Your task to perform on an android device: turn off notifications settings in the gmail app Image 0: 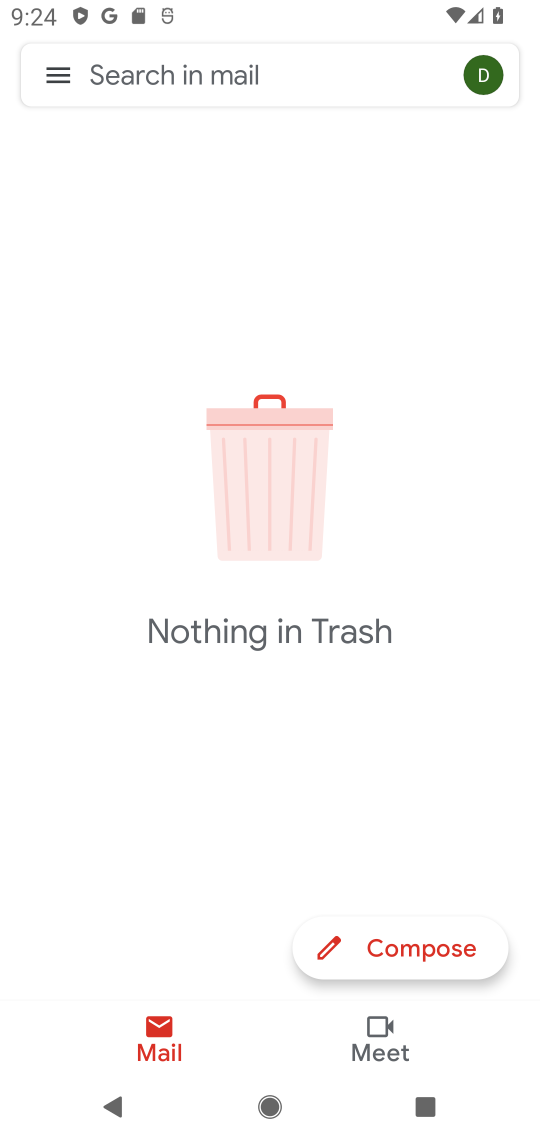
Step 0: press home button
Your task to perform on an android device: turn off notifications settings in the gmail app Image 1: 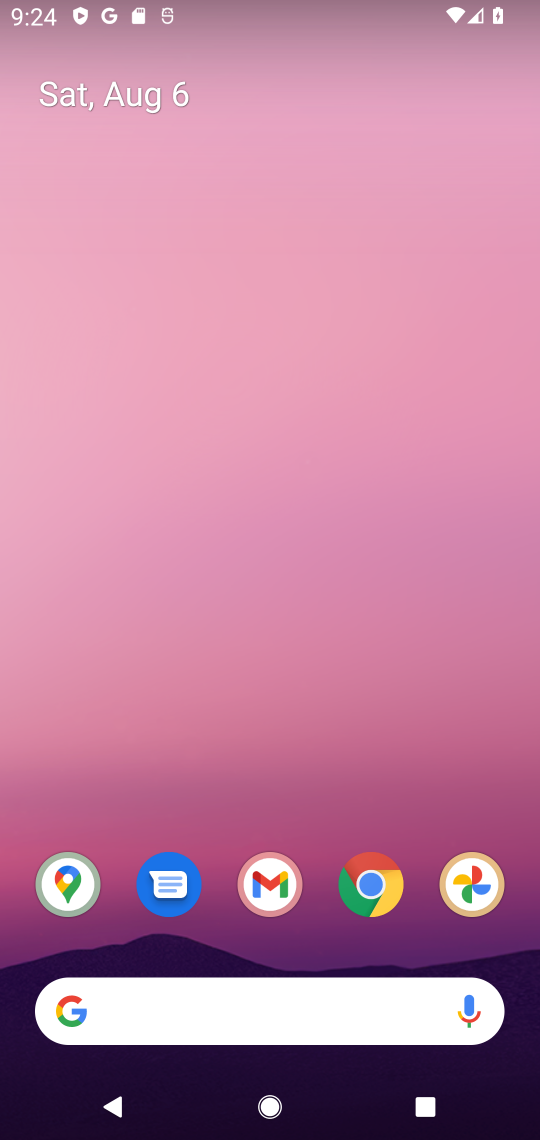
Step 1: click (270, 887)
Your task to perform on an android device: turn off notifications settings in the gmail app Image 2: 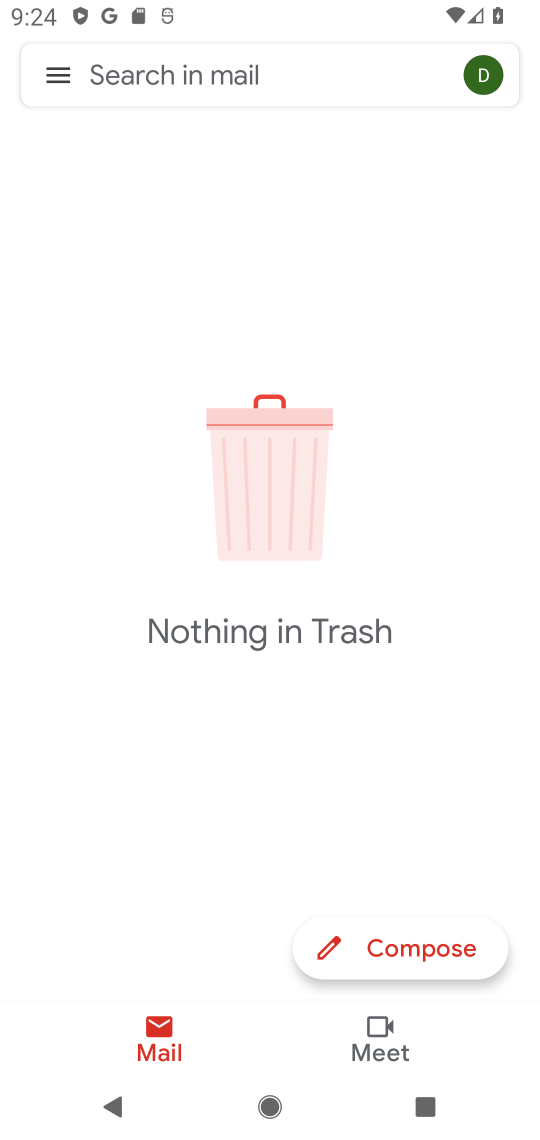
Step 2: click (59, 77)
Your task to perform on an android device: turn off notifications settings in the gmail app Image 3: 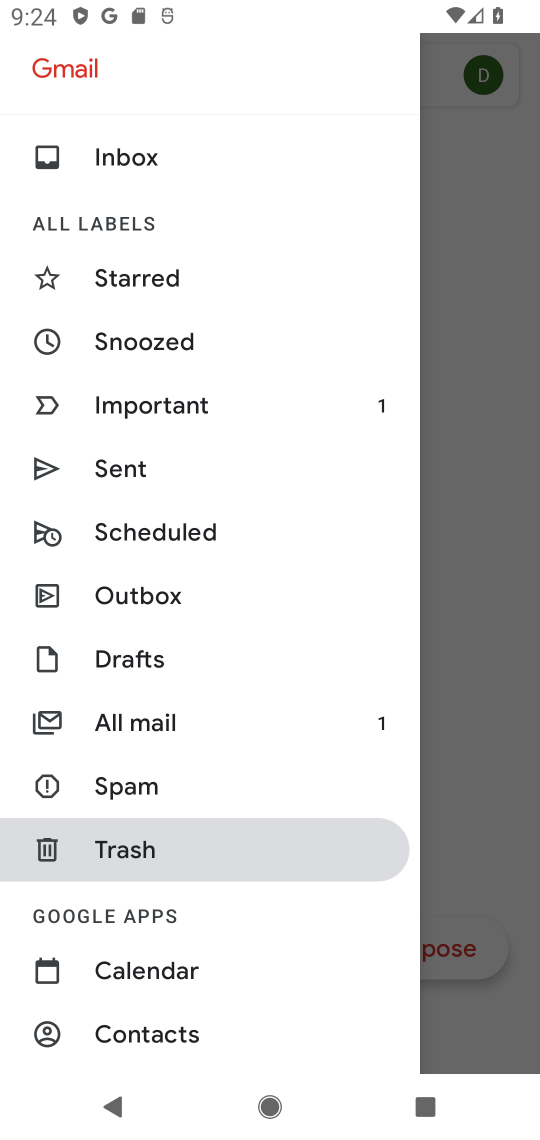
Step 3: drag from (254, 1001) to (283, 400)
Your task to perform on an android device: turn off notifications settings in the gmail app Image 4: 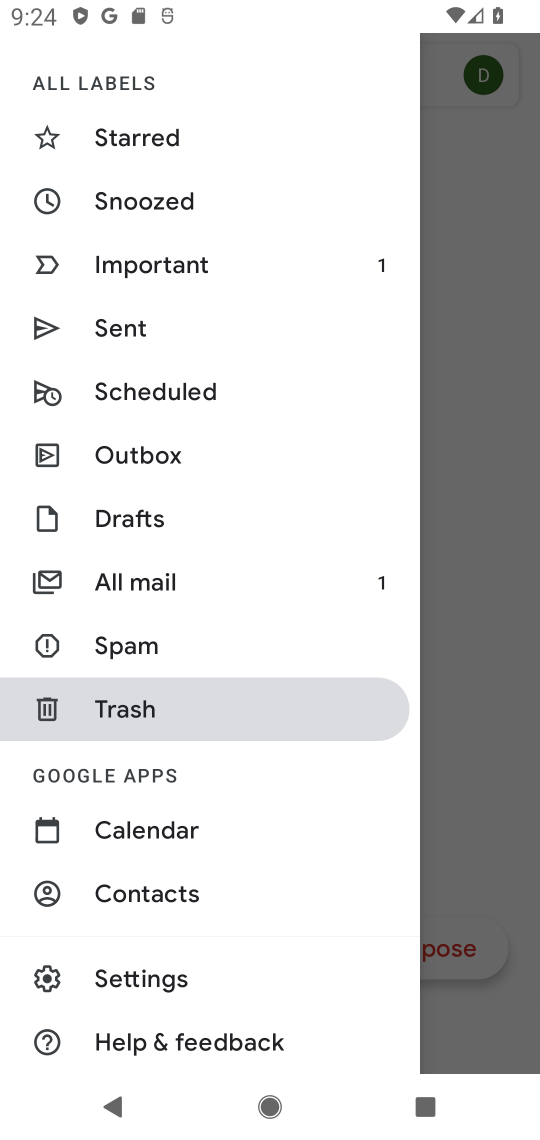
Step 4: click (122, 983)
Your task to perform on an android device: turn off notifications settings in the gmail app Image 5: 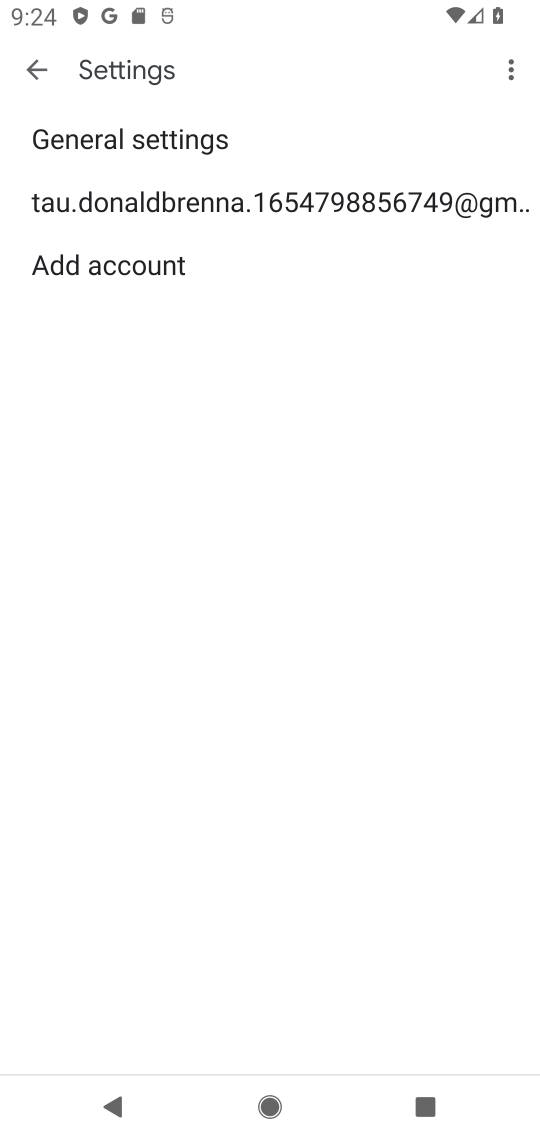
Step 5: click (211, 200)
Your task to perform on an android device: turn off notifications settings in the gmail app Image 6: 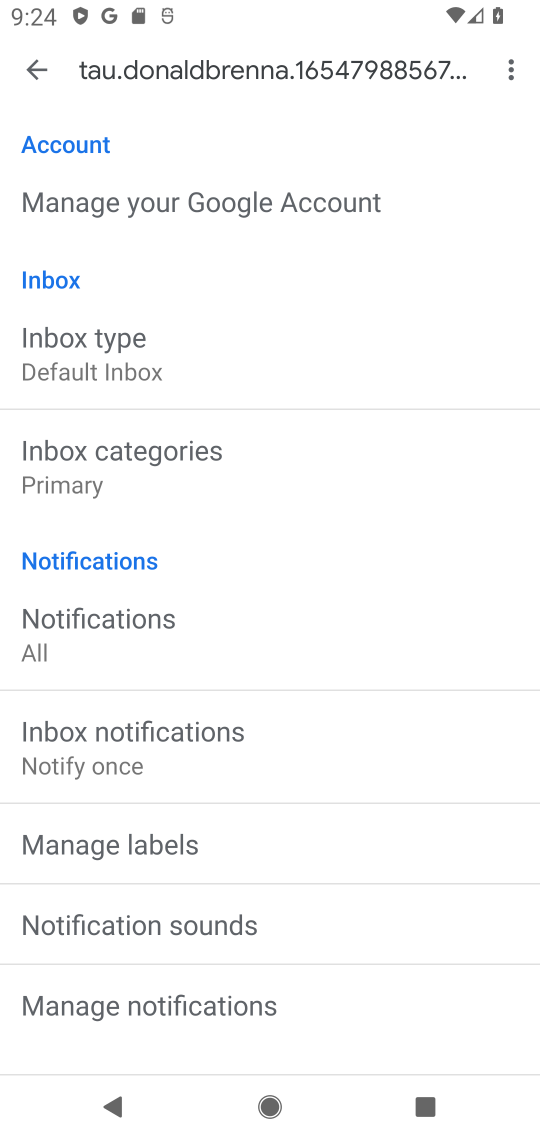
Step 6: drag from (329, 1007) to (351, 503)
Your task to perform on an android device: turn off notifications settings in the gmail app Image 7: 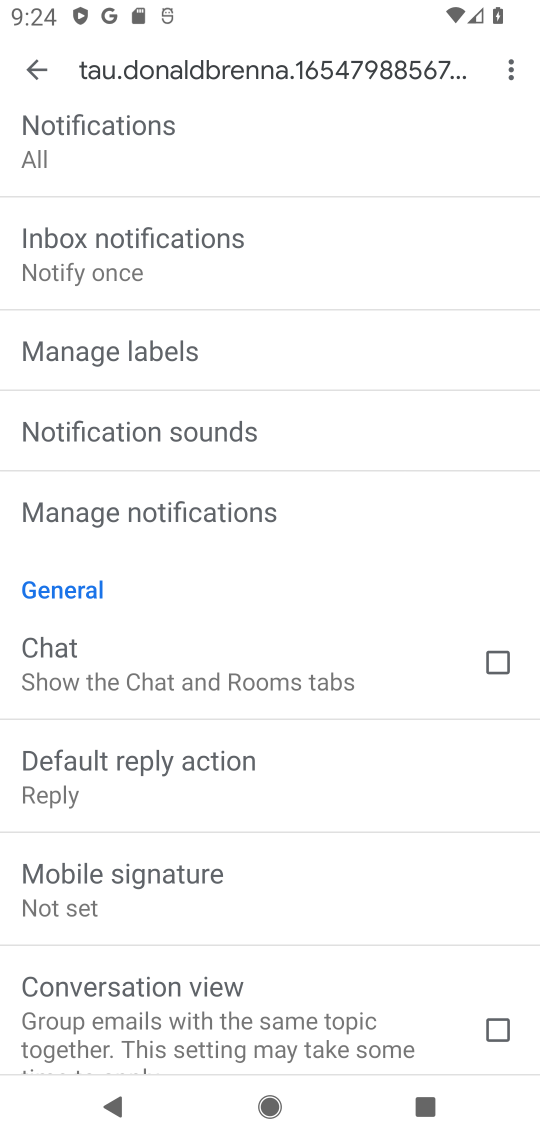
Step 7: click (133, 514)
Your task to perform on an android device: turn off notifications settings in the gmail app Image 8: 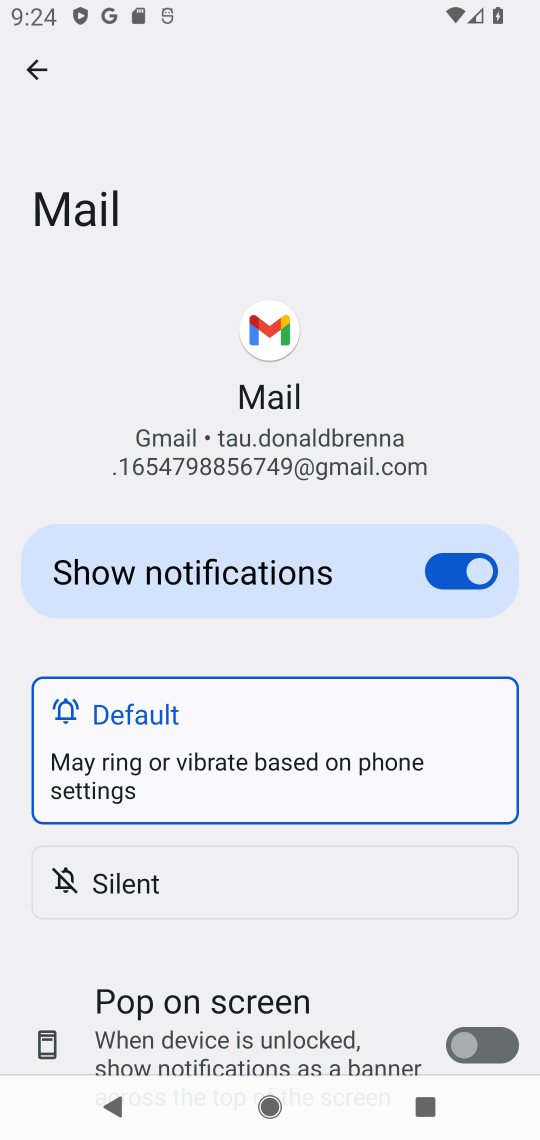
Step 8: click (442, 564)
Your task to perform on an android device: turn off notifications settings in the gmail app Image 9: 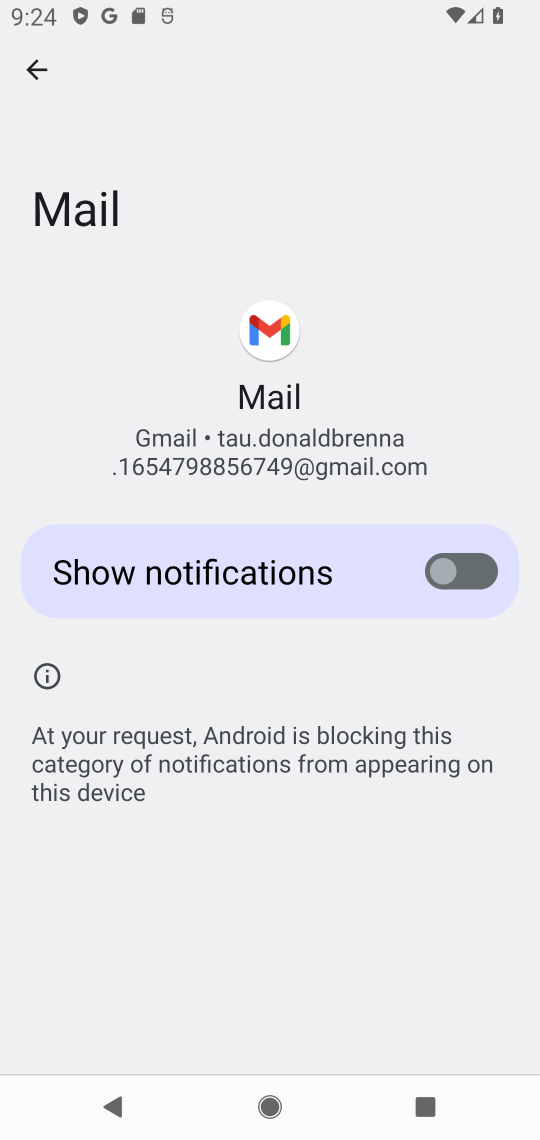
Step 9: task complete